Your task to perform on an android device: Find coffee shops on Maps Image 0: 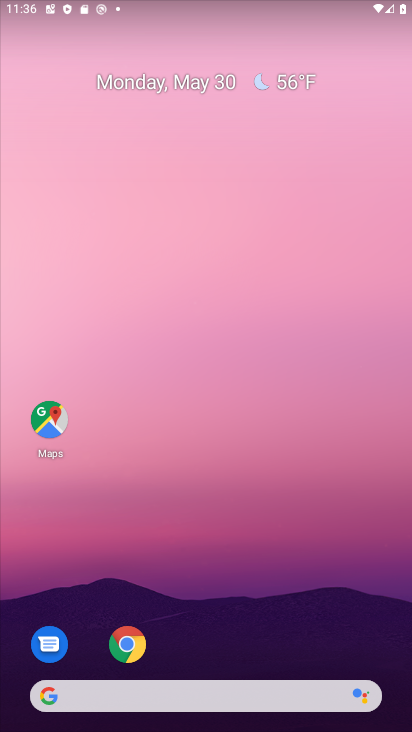
Step 0: click (65, 435)
Your task to perform on an android device: Find coffee shops on Maps Image 1: 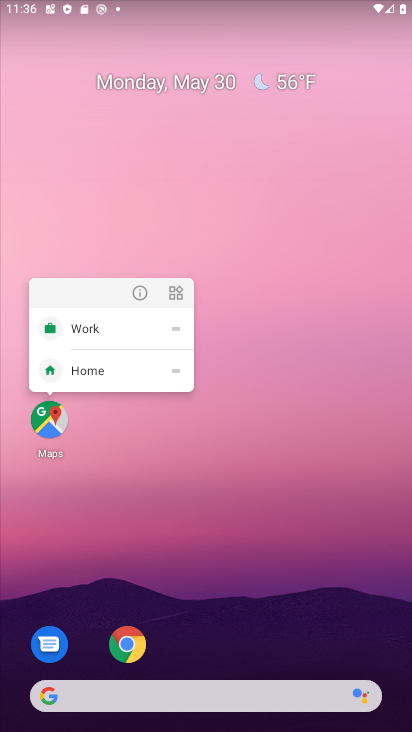
Step 1: click (64, 433)
Your task to perform on an android device: Find coffee shops on Maps Image 2: 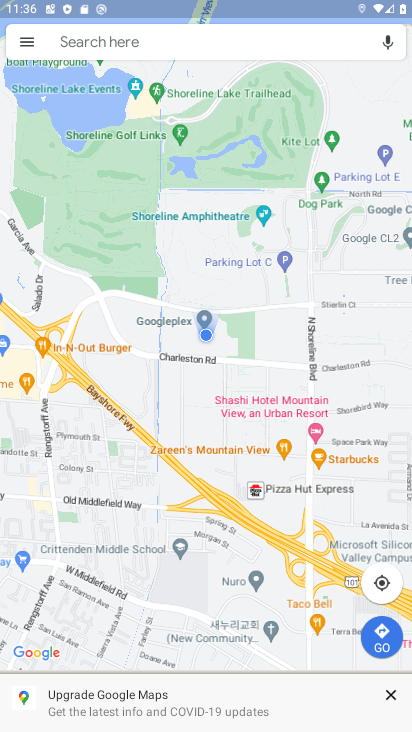
Step 2: click (179, 39)
Your task to perform on an android device: Find coffee shops on Maps Image 3: 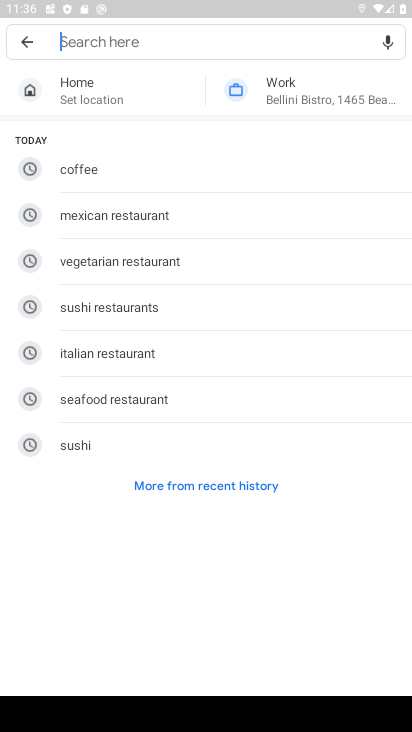
Step 3: type "coffee shops"
Your task to perform on an android device: Find coffee shops on Maps Image 4: 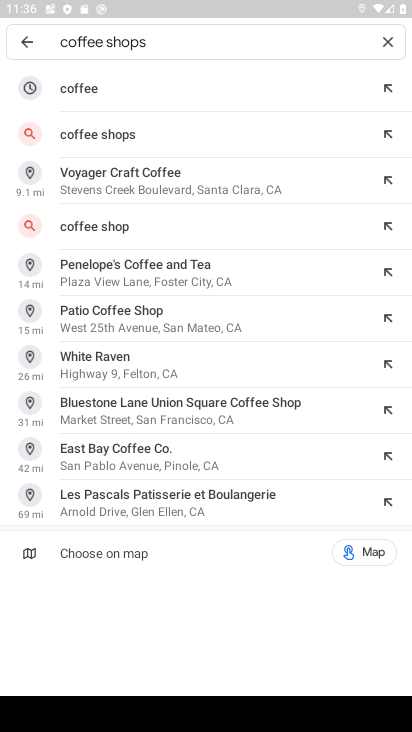
Step 4: click (142, 135)
Your task to perform on an android device: Find coffee shops on Maps Image 5: 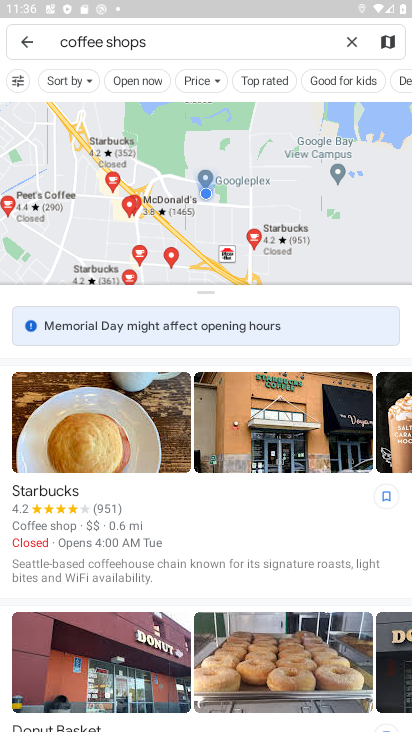
Step 5: task complete